Your task to perform on an android device: Go to Yahoo.com Image 0: 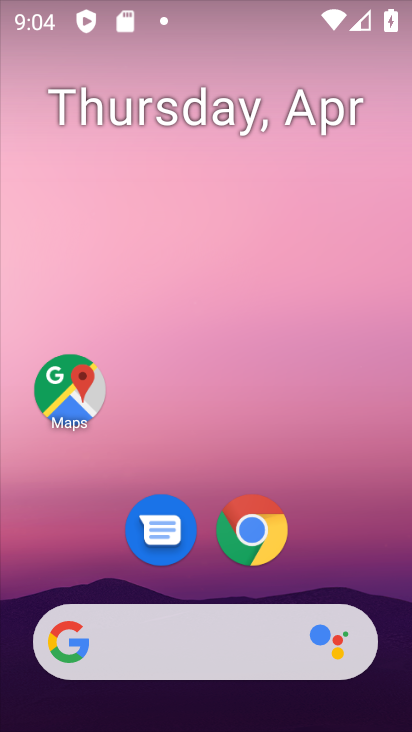
Step 0: drag from (363, 587) to (260, 40)
Your task to perform on an android device: Go to Yahoo.com Image 1: 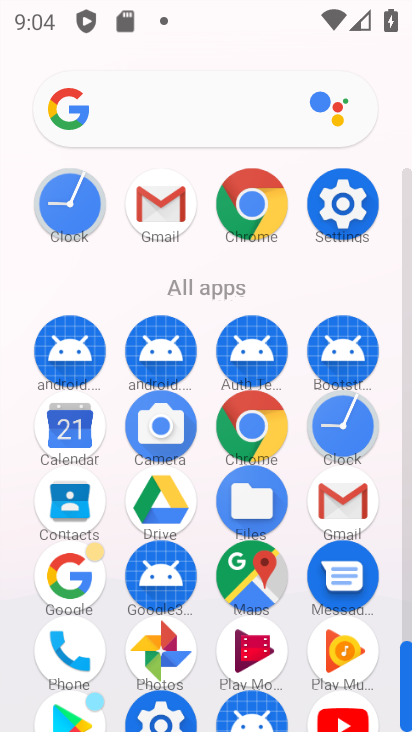
Step 1: click (257, 437)
Your task to perform on an android device: Go to Yahoo.com Image 2: 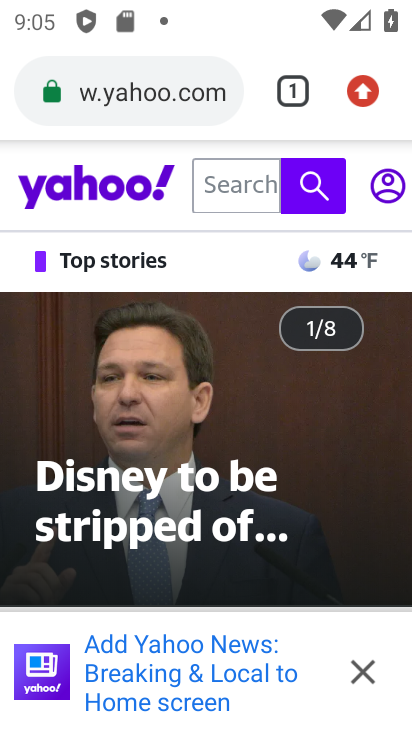
Step 2: task complete